Your task to perform on an android device: turn off translation in the chrome app Image 0: 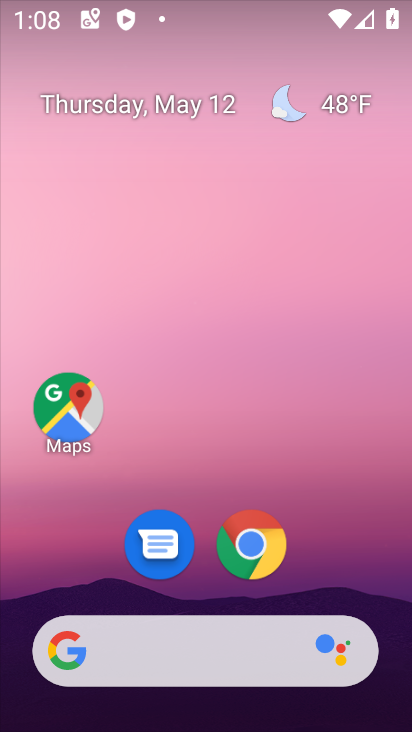
Step 0: drag from (330, 533) to (241, 41)
Your task to perform on an android device: turn off translation in the chrome app Image 1: 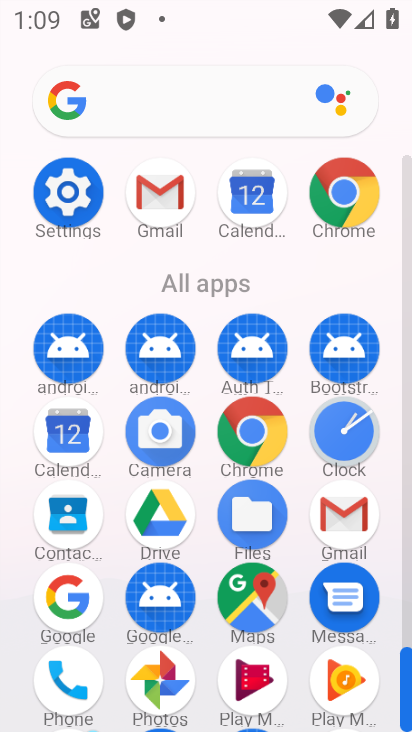
Step 1: click (354, 189)
Your task to perform on an android device: turn off translation in the chrome app Image 2: 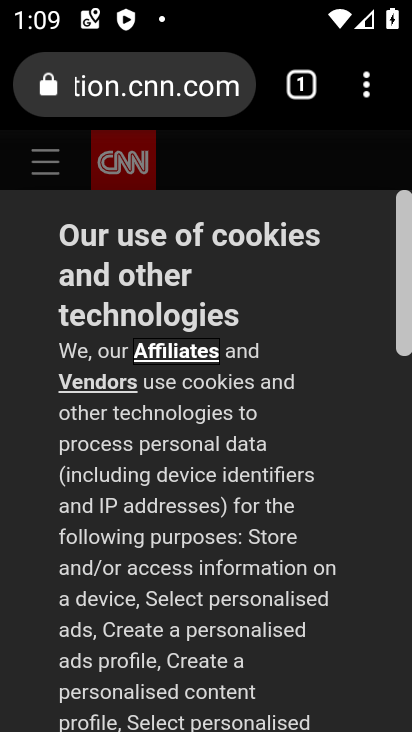
Step 2: drag from (371, 95) to (134, 581)
Your task to perform on an android device: turn off translation in the chrome app Image 3: 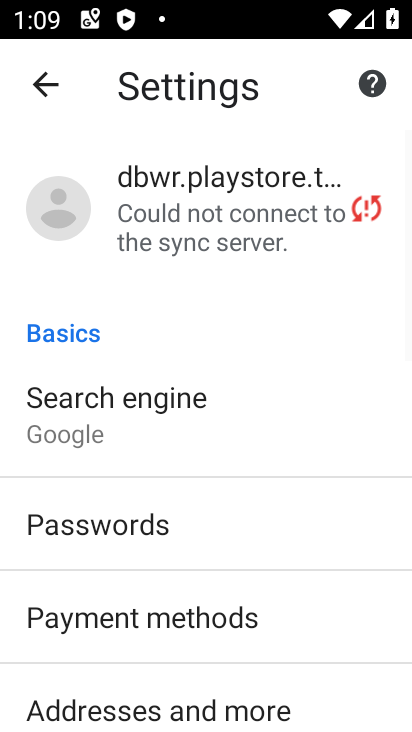
Step 3: drag from (199, 476) to (208, 138)
Your task to perform on an android device: turn off translation in the chrome app Image 4: 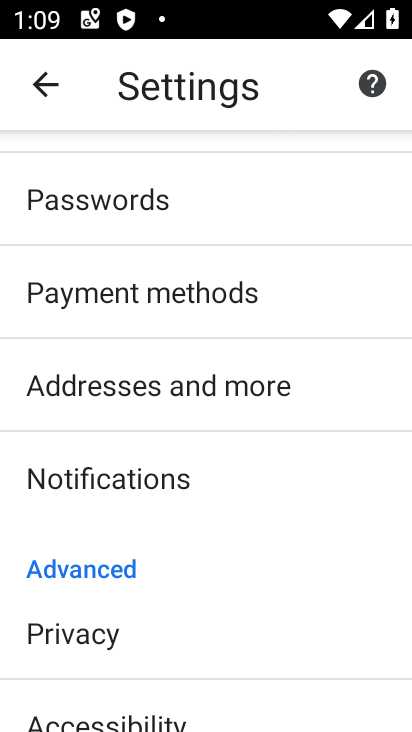
Step 4: drag from (223, 542) to (215, 209)
Your task to perform on an android device: turn off translation in the chrome app Image 5: 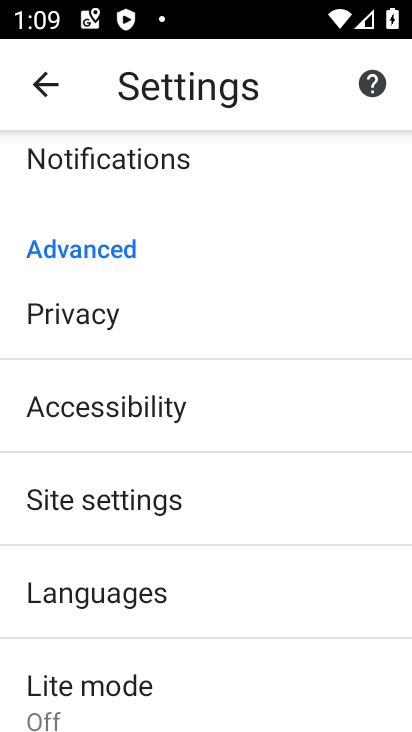
Step 5: drag from (141, 575) to (210, 223)
Your task to perform on an android device: turn off translation in the chrome app Image 6: 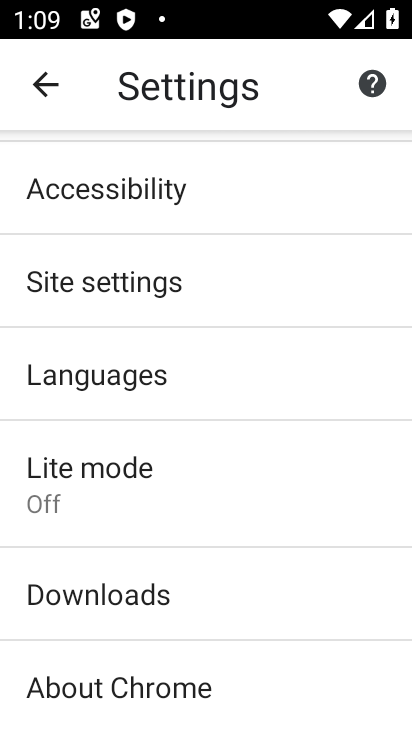
Step 6: click (188, 356)
Your task to perform on an android device: turn off translation in the chrome app Image 7: 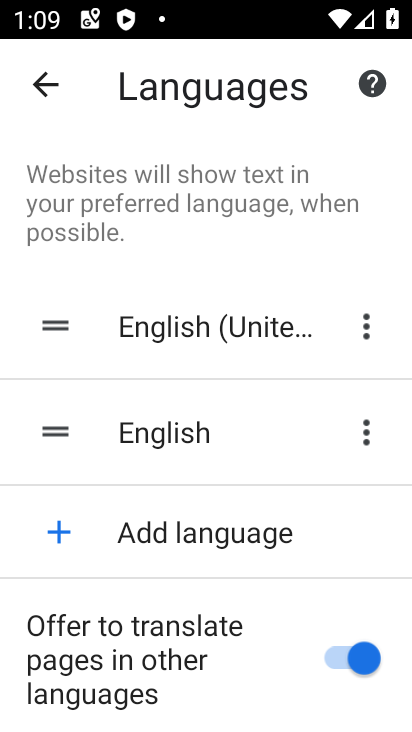
Step 7: click (342, 648)
Your task to perform on an android device: turn off translation in the chrome app Image 8: 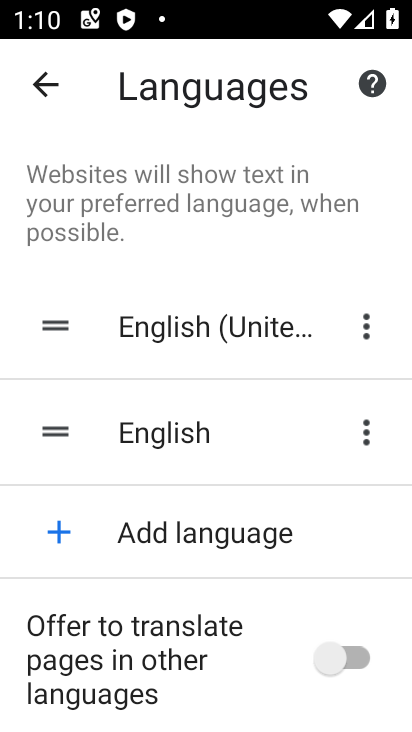
Step 8: task complete